Your task to perform on an android device: Open Yahoo.com Image 0: 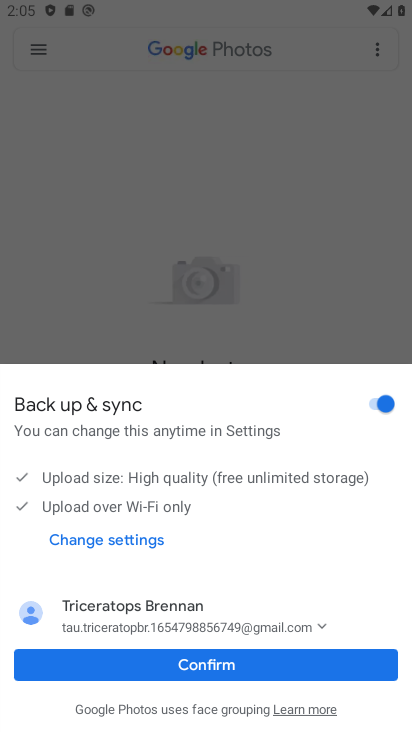
Step 0: click (252, 135)
Your task to perform on an android device: Open Yahoo.com Image 1: 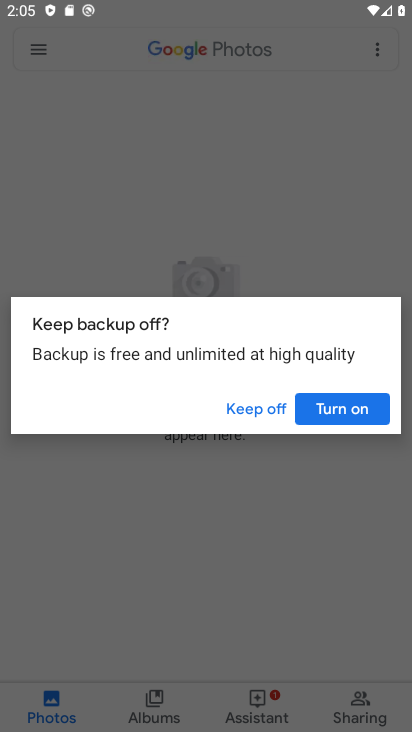
Step 1: click (42, 55)
Your task to perform on an android device: Open Yahoo.com Image 2: 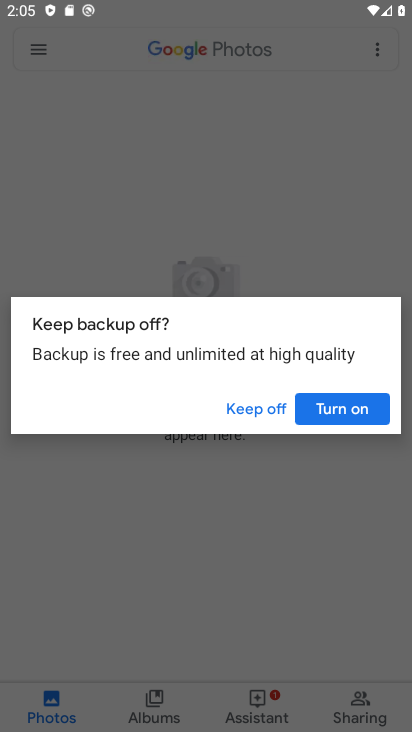
Step 2: click (254, 410)
Your task to perform on an android device: Open Yahoo.com Image 3: 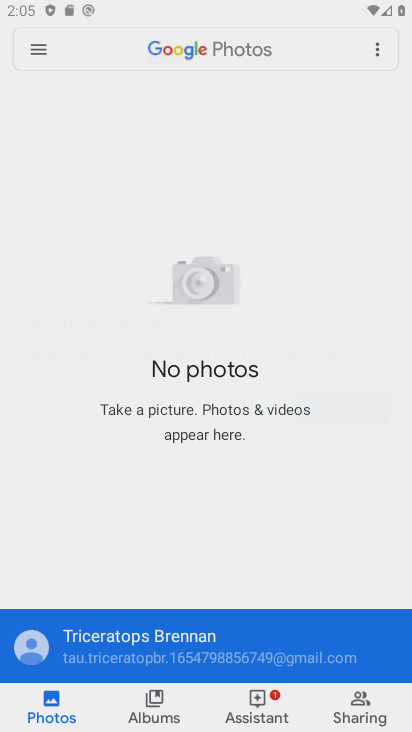
Step 3: click (242, 406)
Your task to perform on an android device: Open Yahoo.com Image 4: 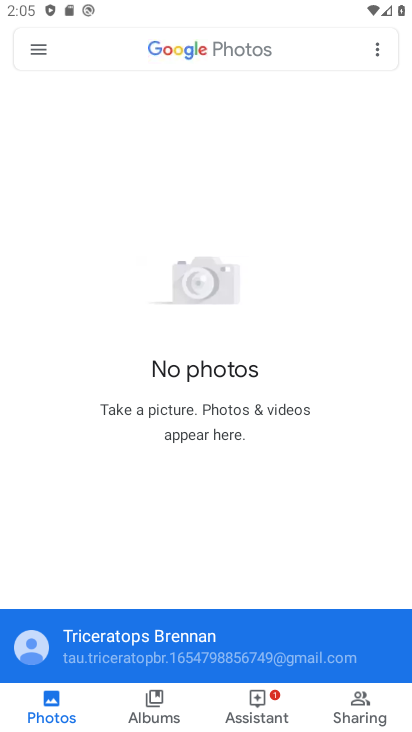
Step 4: drag from (239, 481) to (234, 176)
Your task to perform on an android device: Open Yahoo.com Image 5: 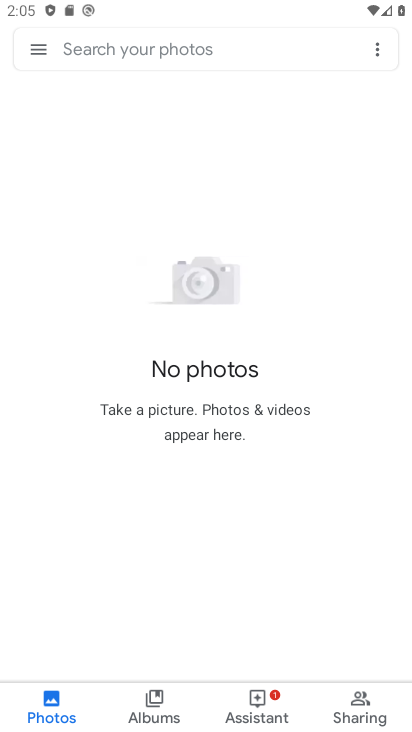
Step 5: press back button
Your task to perform on an android device: Open Yahoo.com Image 6: 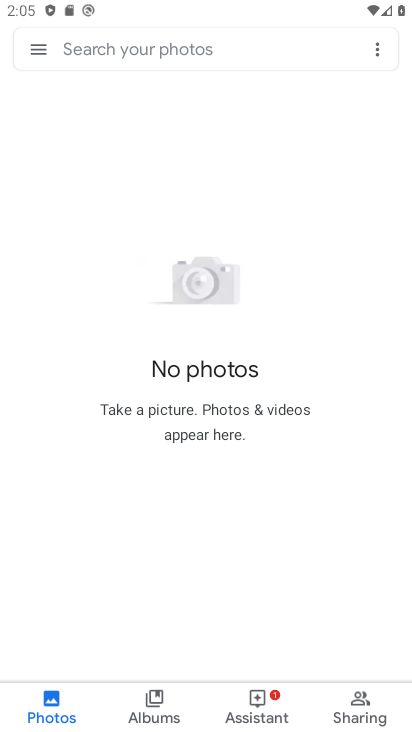
Step 6: press back button
Your task to perform on an android device: Open Yahoo.com Image 7: 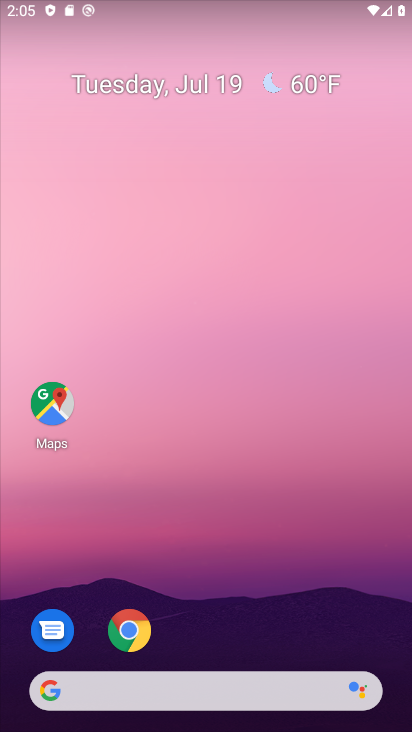
Step 7: press home button
Your task to perform on an android device: Open Yahoo.com Image 8: 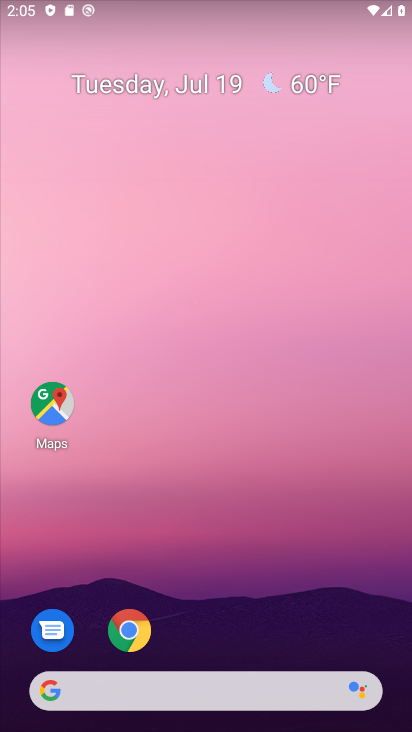
Step 8: click (161, 417)
Your task to perform on an android device: Open Yahoo.com Image 9: 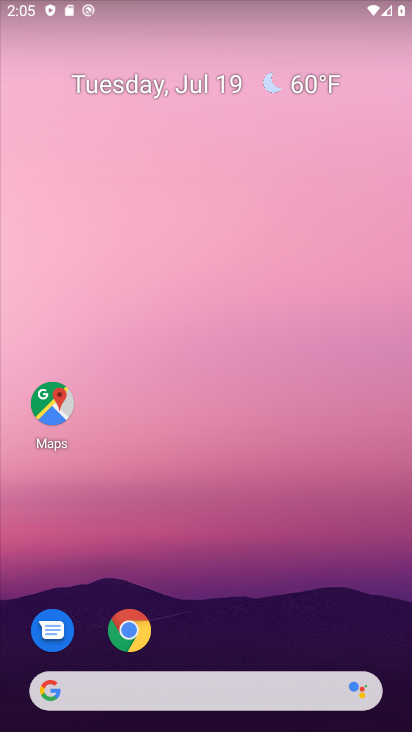
Step 9: drag from (226, 566) to (234, 113)
Your task to perform on an android device: Open Yahoo.com Image 10: 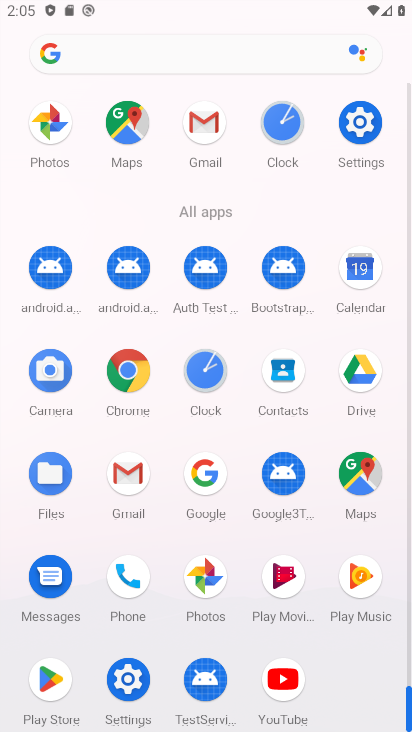
Step 10: click (129, 360)
Your task to perform on an android device: Open Yahoo.com Image 11: 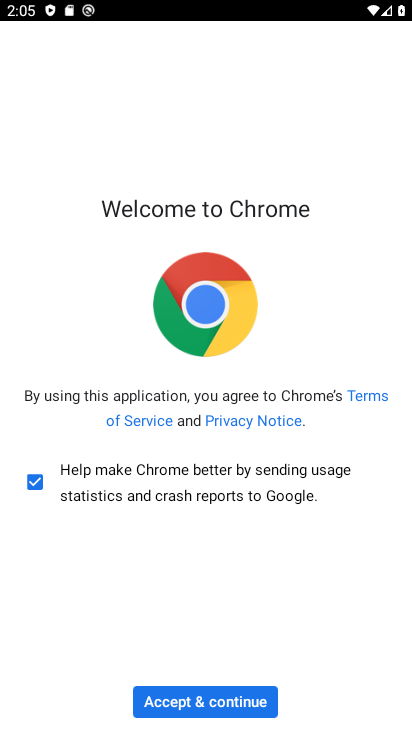
Step 11: click (199, 698)
Your task to perform on an android device: Open Yahoo.com Image 12: 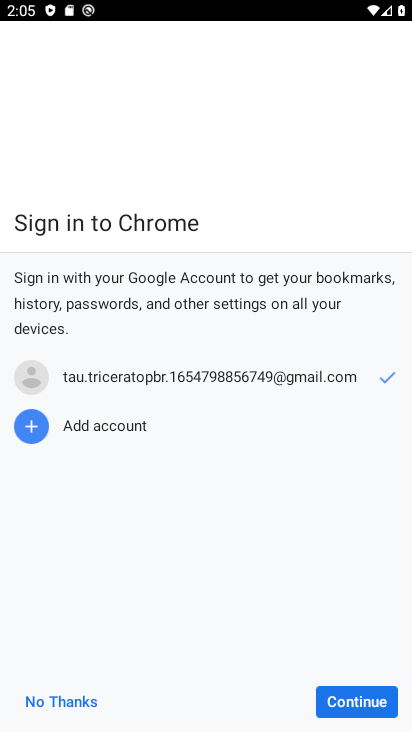
Step 12: click (355, 692)
Your task to perform on an android device: Open Yahoo.com Image 13: 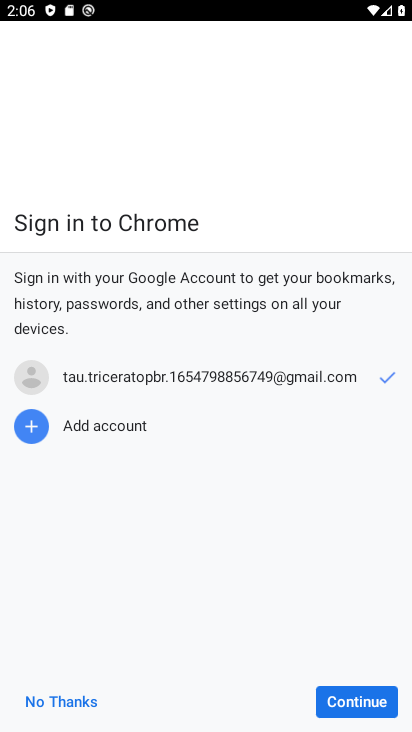
Step 13: click (355, 692)
Your task to perform on an android device: Open Yahoo.com Image 14: 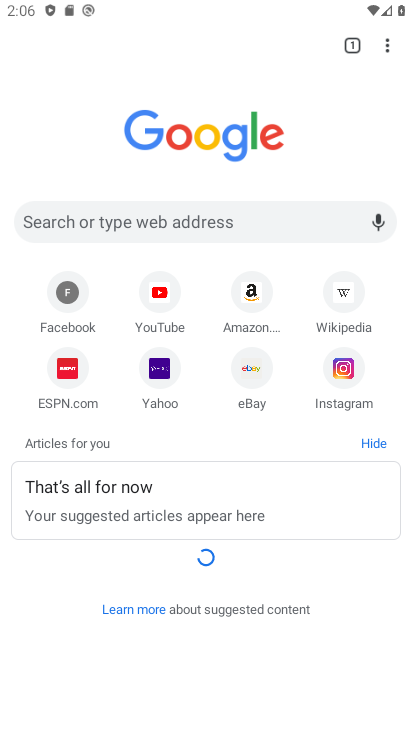
Step 14: click (147, 370)
Your task to perform on an android device: Open Yahoo.com Image 15: 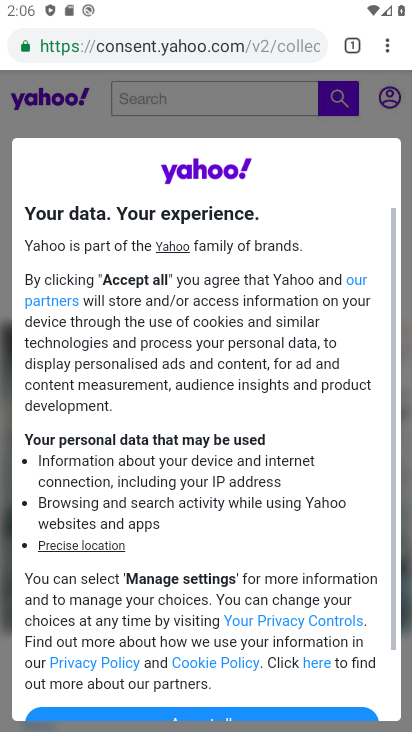
Step 15: task complete